Your task to perform on an android device: Search for sushi restaurants on Maps Image 0: 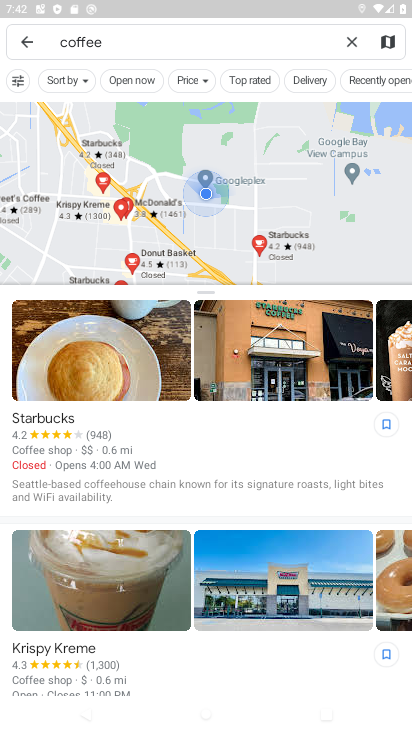
Step 0: click (357, 37)
Your task to perform on an android device: Search for sushi restaurants on Maps Image 1: 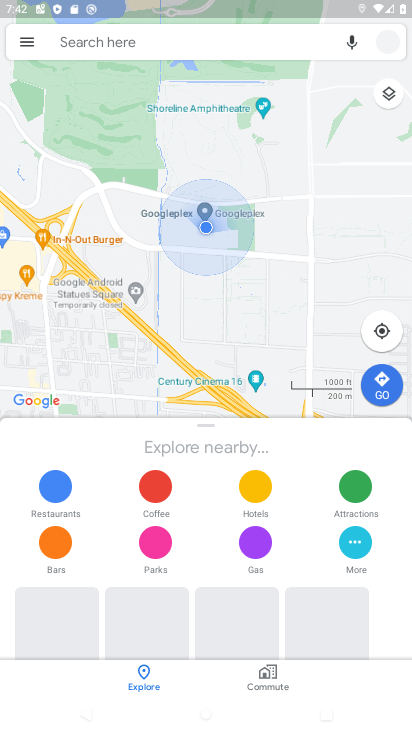
Step 1: click (226, 41)
Your task to perform on an android device: Search for sushi restaurants on Maps Image 2: 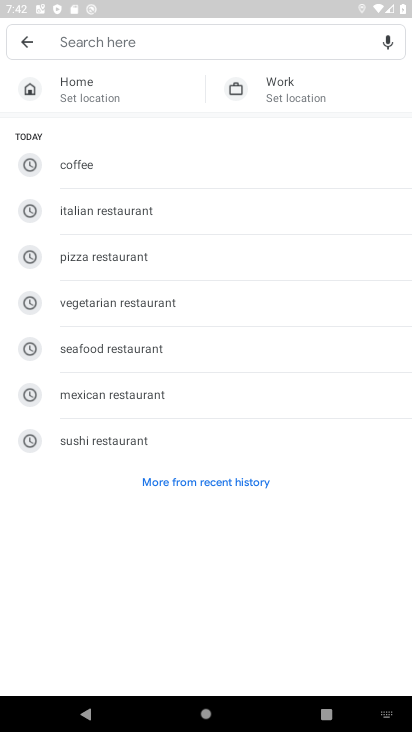
Step 2: click (123, 453)
Your task to perform on an android device: Search for sushi restaurants on Maps Image 3: 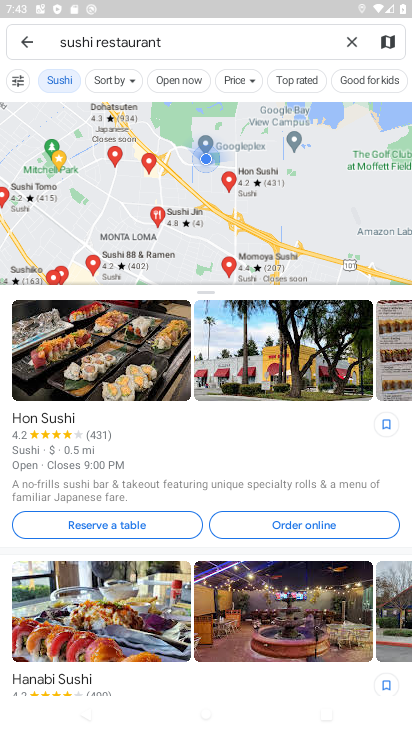
Step 3: task complete